Your task to perform on an android device: Empty the shopping cart on amazon. Add bose quietcomfort 35 to the cart on amazon Image 0: 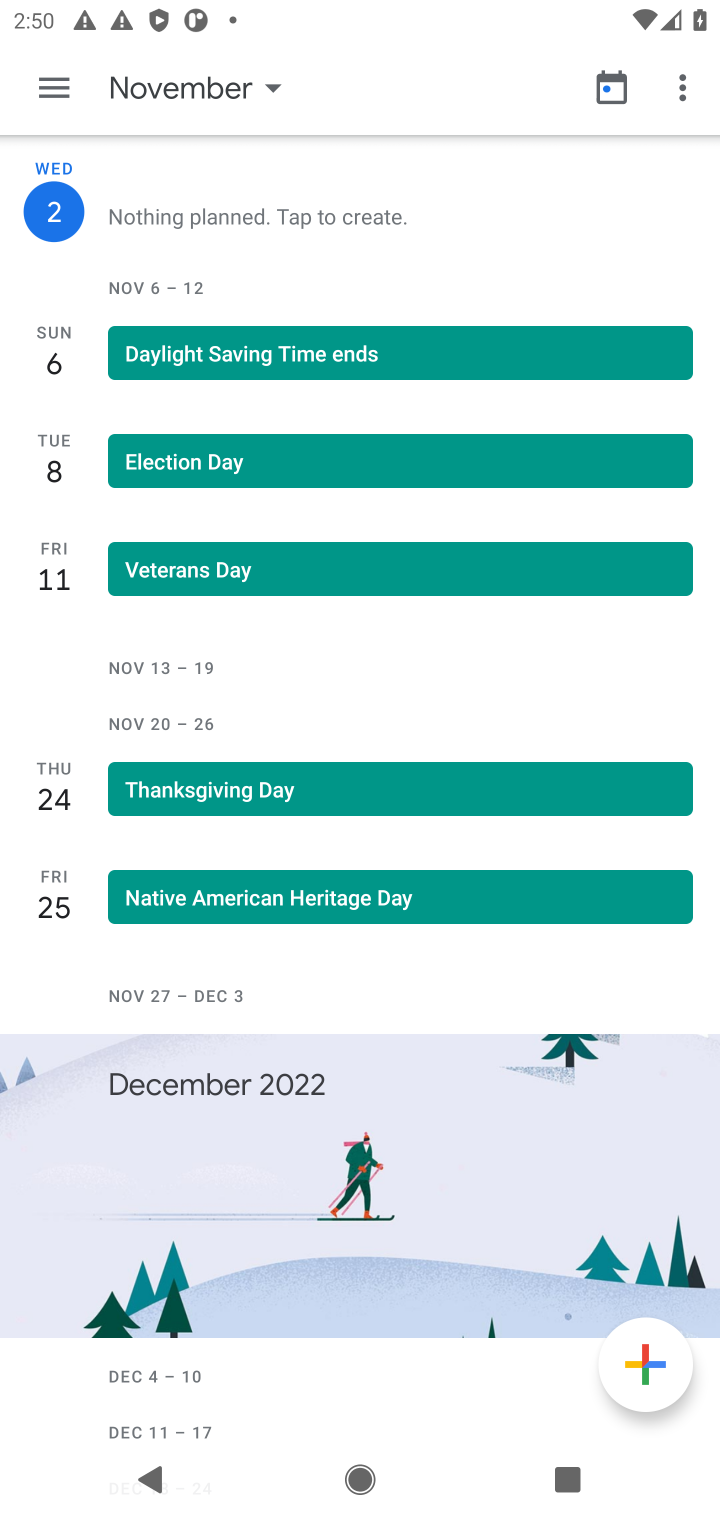
Step 0: press home button
Your task to perform on an android device: Empty the shopping cart on amazon. Add bose quietcomfort 35 to the cart on amazon Image 1: 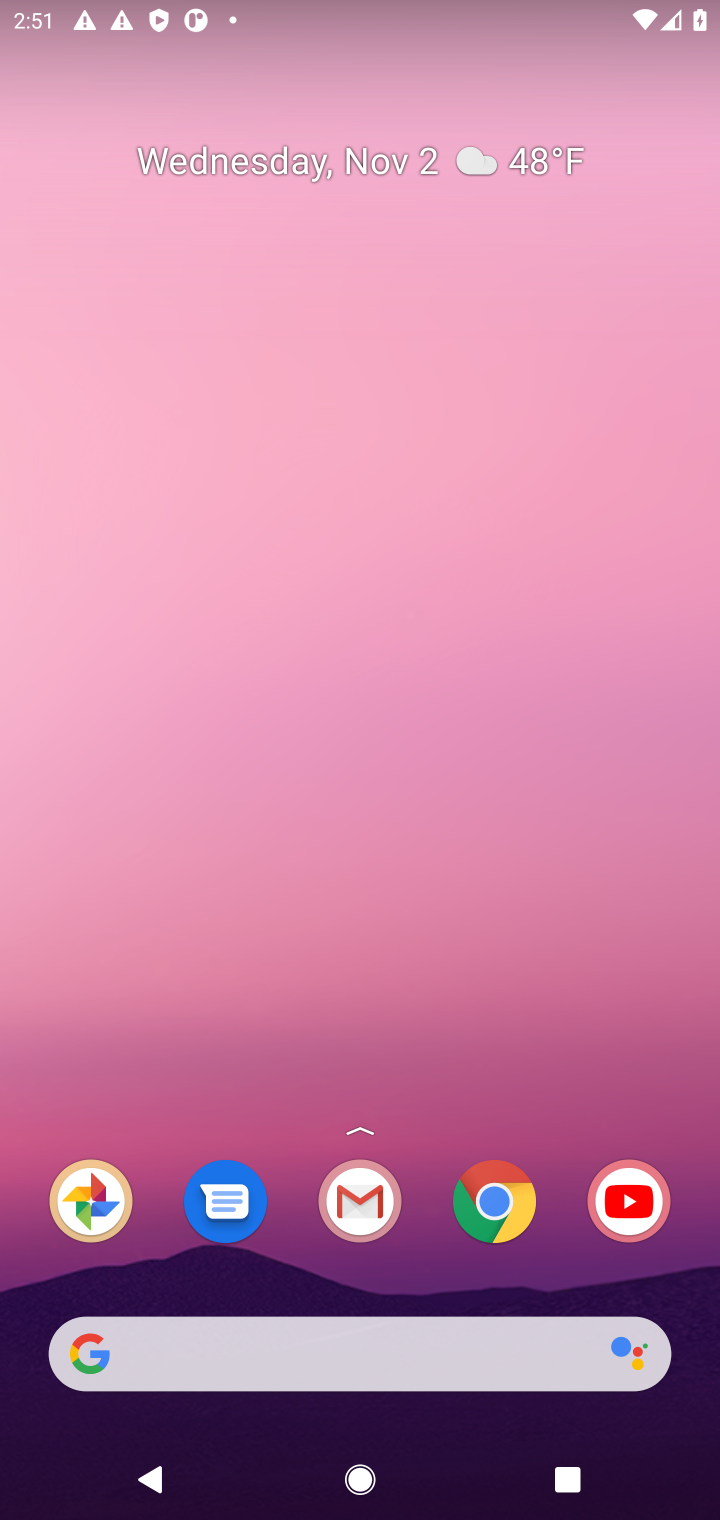
Step 1: click (495, 1207)
Your task to perform on an android device: Empty the shopping cart on amazon. Add bose quietcomfort 35 to the cart on amazon Image 2: 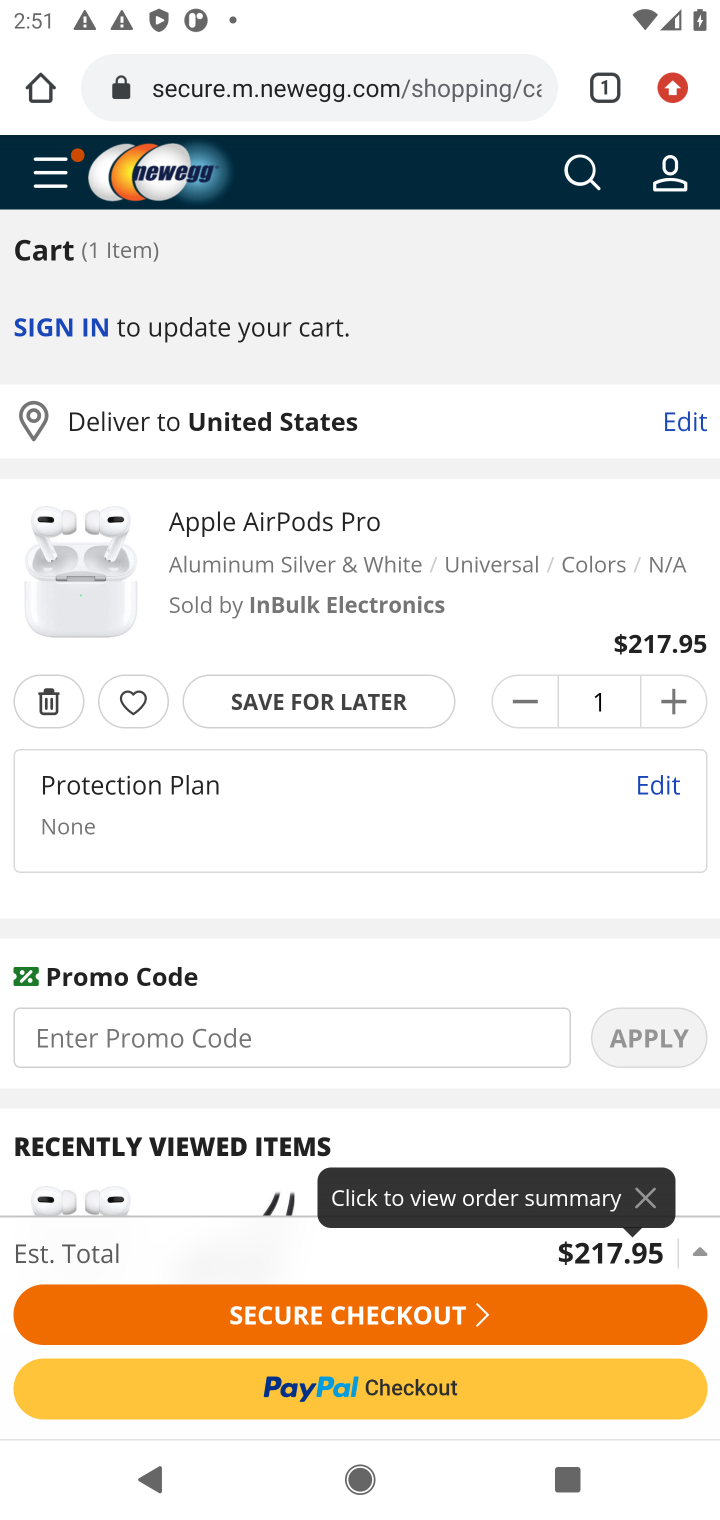
Step 2: click (438, 84)
Your task to perform on an android device: Empty the shopping cart on amazon. Add bose quietcomfort 35 to the cart on amazon Image 3: 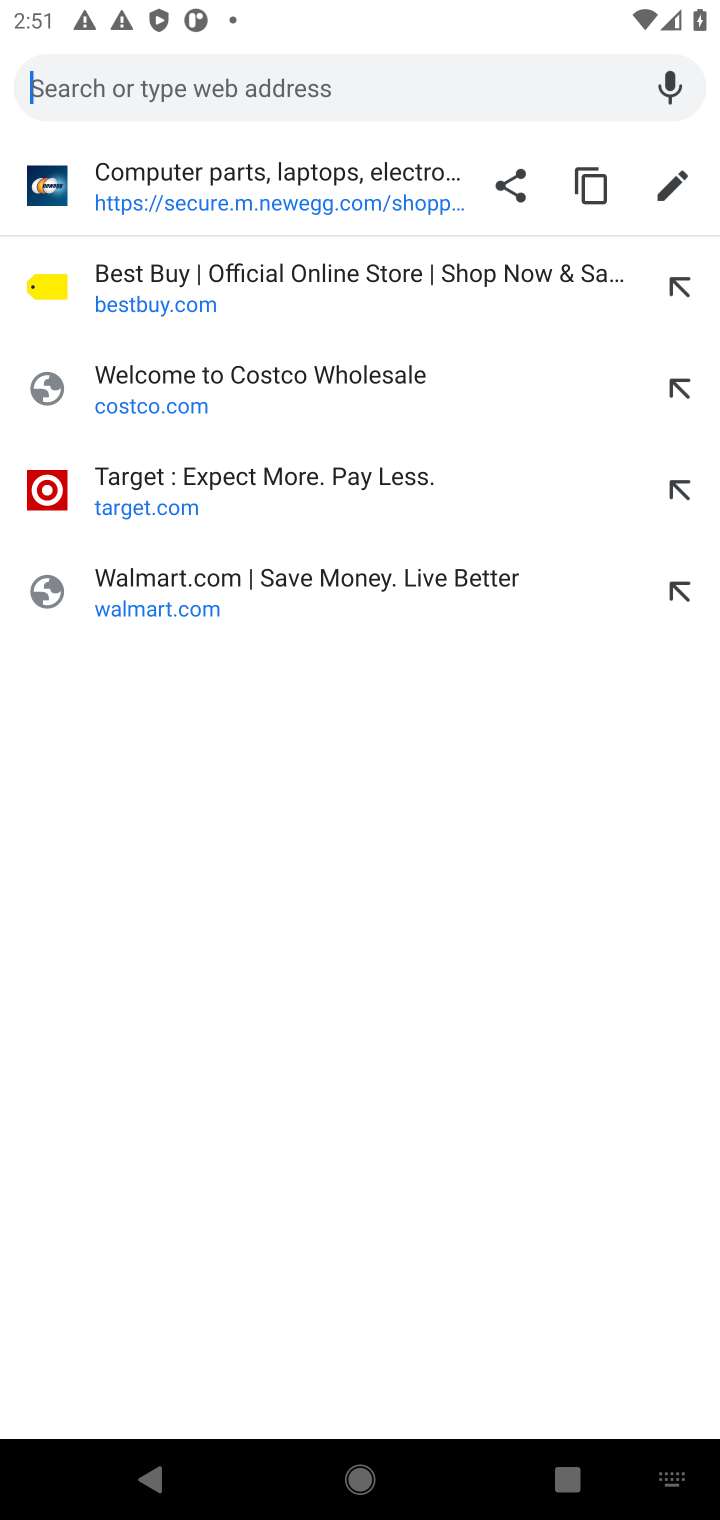
Step 3: type "amazon"
Your task to perform on an android device: Empty the shopping cart on amazon. Add bose quietcomfort 35 to the cart on amazon Image 4: 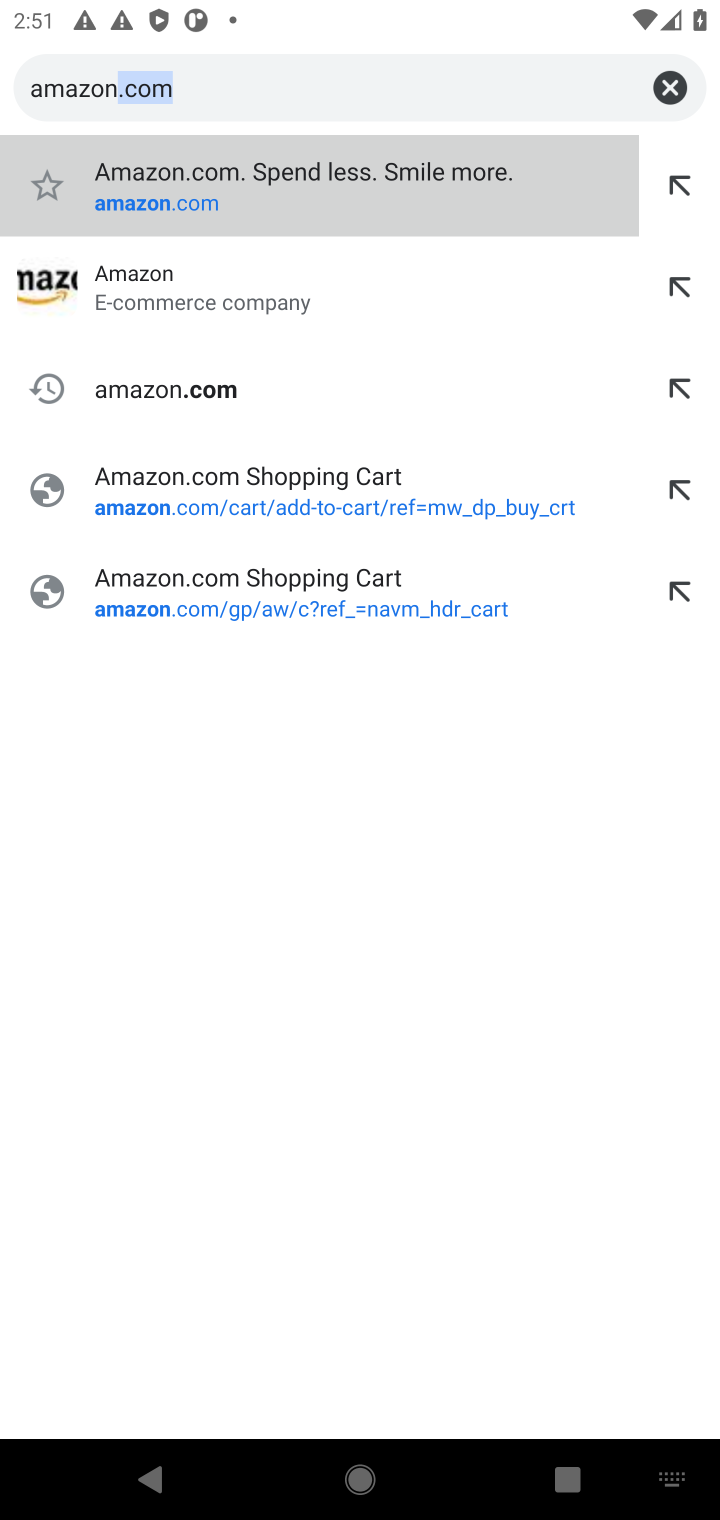
Step 4: press enter
Your task to perform on an android device: Empty the shopping cart on amazon. Add bose quietcomfort 35 to the cart on amazon Image 5: 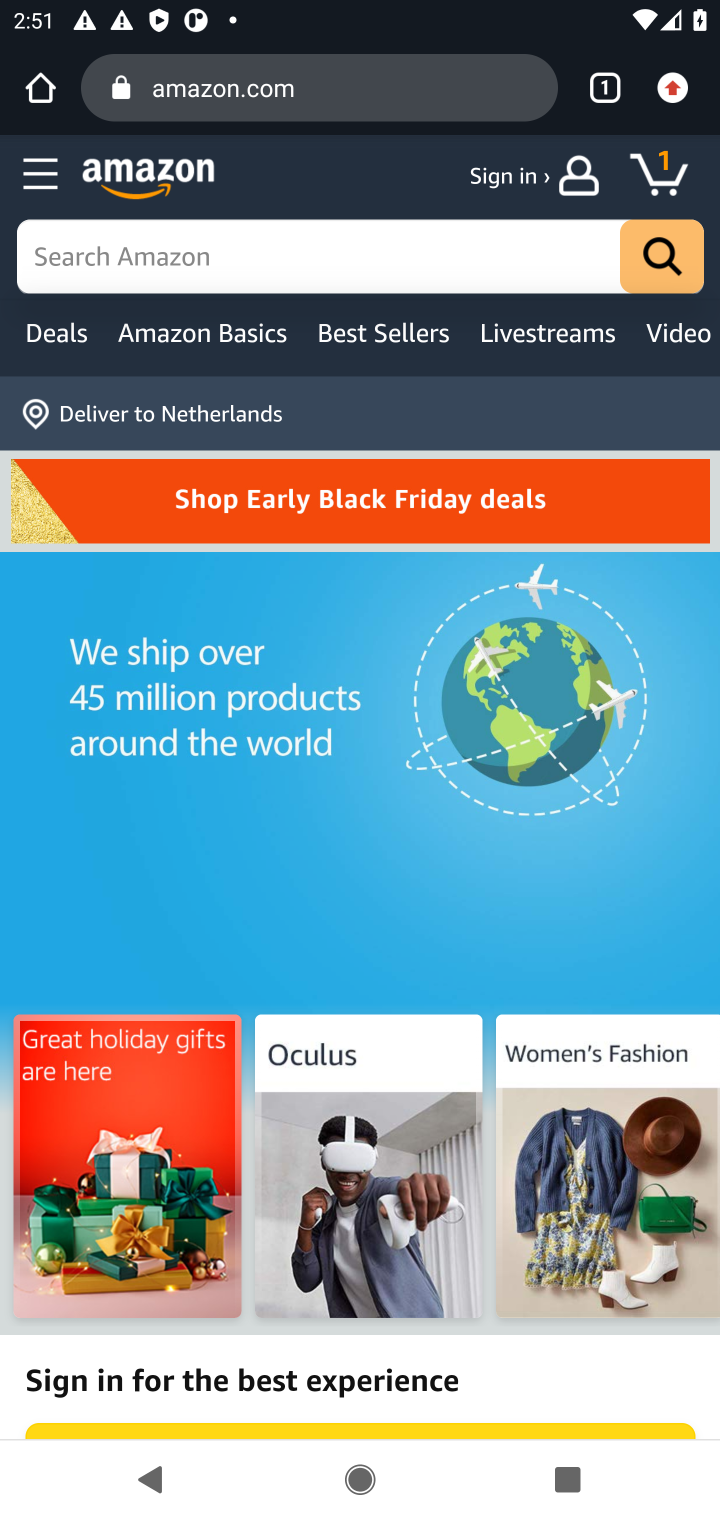
Step 5: click (368, 252)
Your task to perform on an android device: Empty the shopping cart on amazon. Add bose quietcomfort 35 to the cart on amazon Image 6: 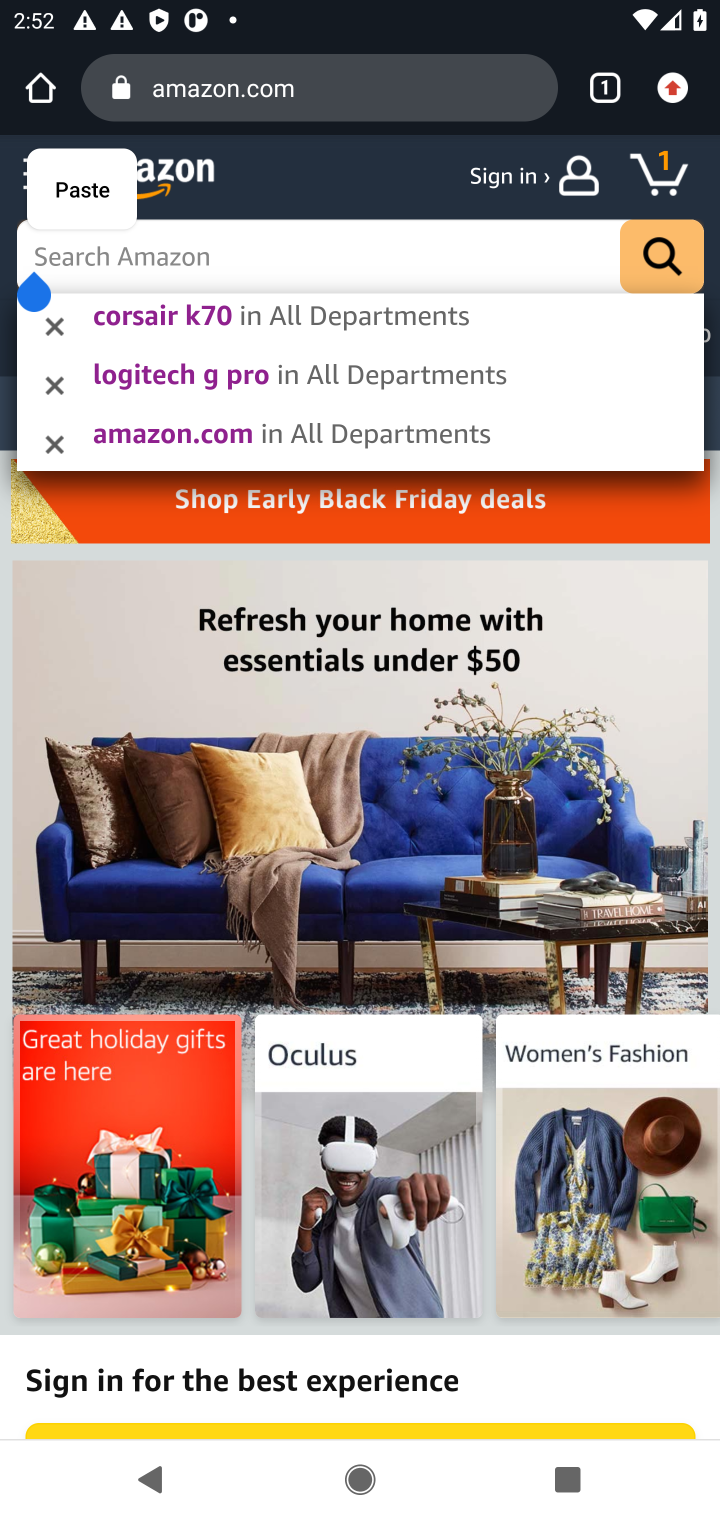
Step 6: type "bose quietcomfort 35"
Your task to perform on an android device: Empty the shopping cart on amazon. Add bose quietcomfort 35 to the cart on amazon Image 7: 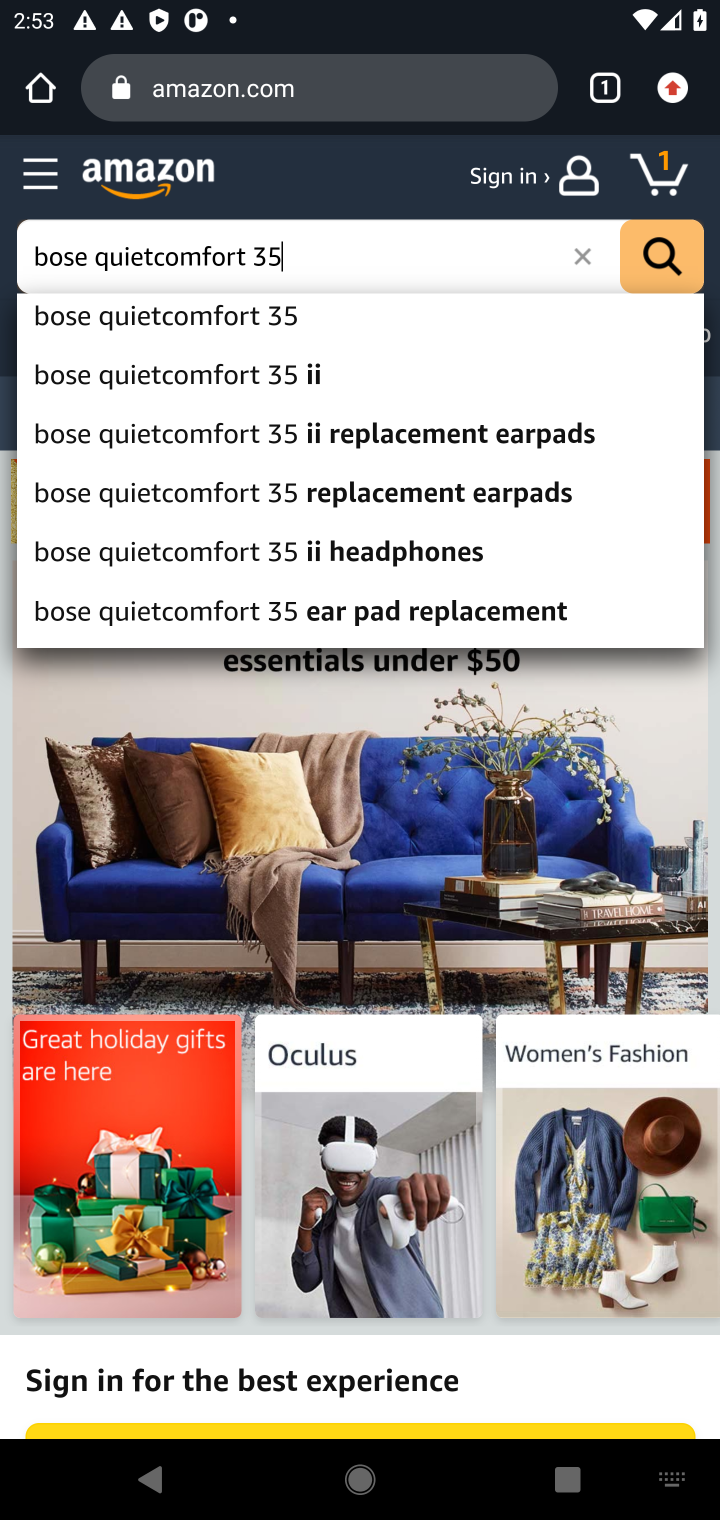
Step 7: click (238, 306)
Your task to perform on an android device: Empty the shopping cart on amazon. Add bose quietcomfort 35 to the cart on amazon Image 8: 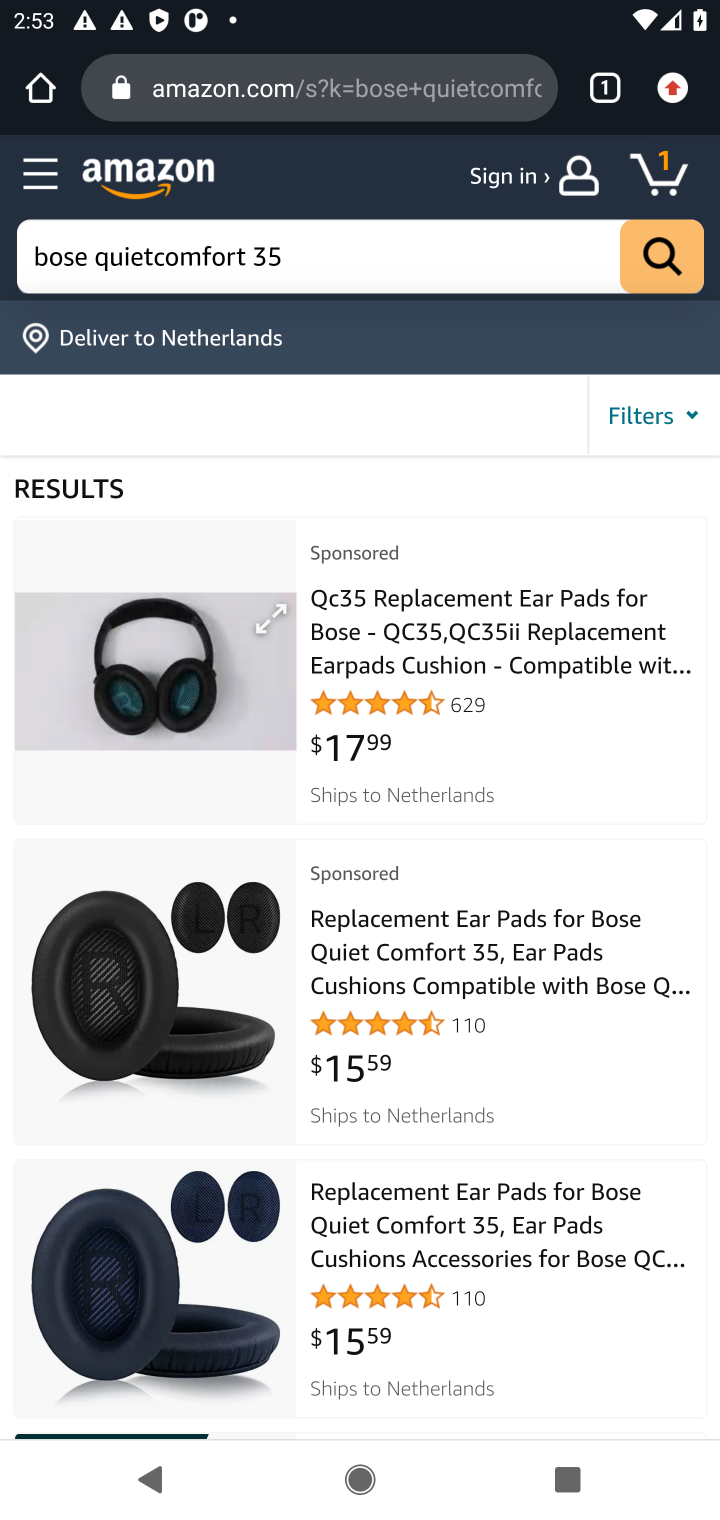
Step 8: drag from (600, 1091) to (553, 674)
Your task to perform on an android device: Empty the shopping cart on amazon. Add bose quietcomfort 35 to the cart on amazon Image 9: 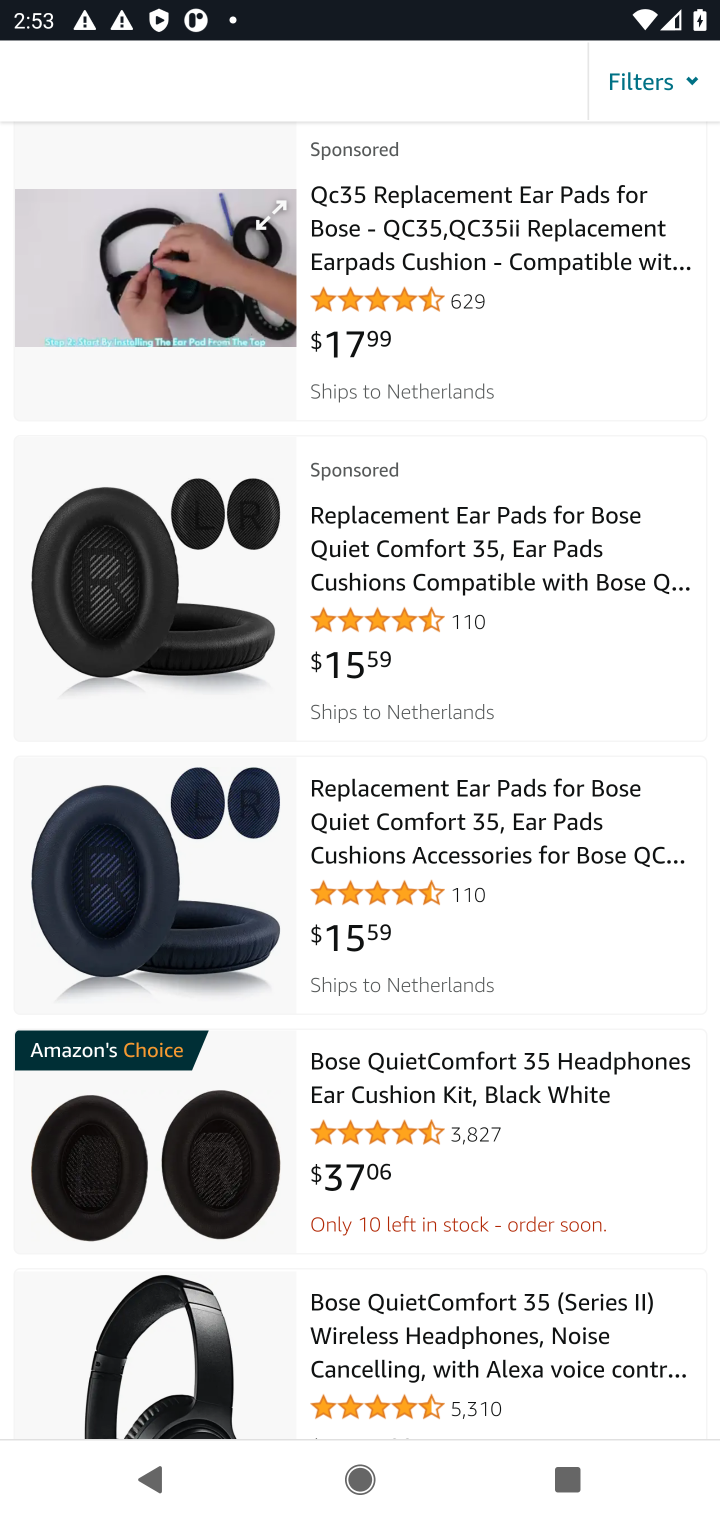
Step 9: click (538, 1082)
Your task to perform on an android device: Empty the shopping cart on amazon. Add bose quietcomfort 35 to the cart on amazon Image 10: 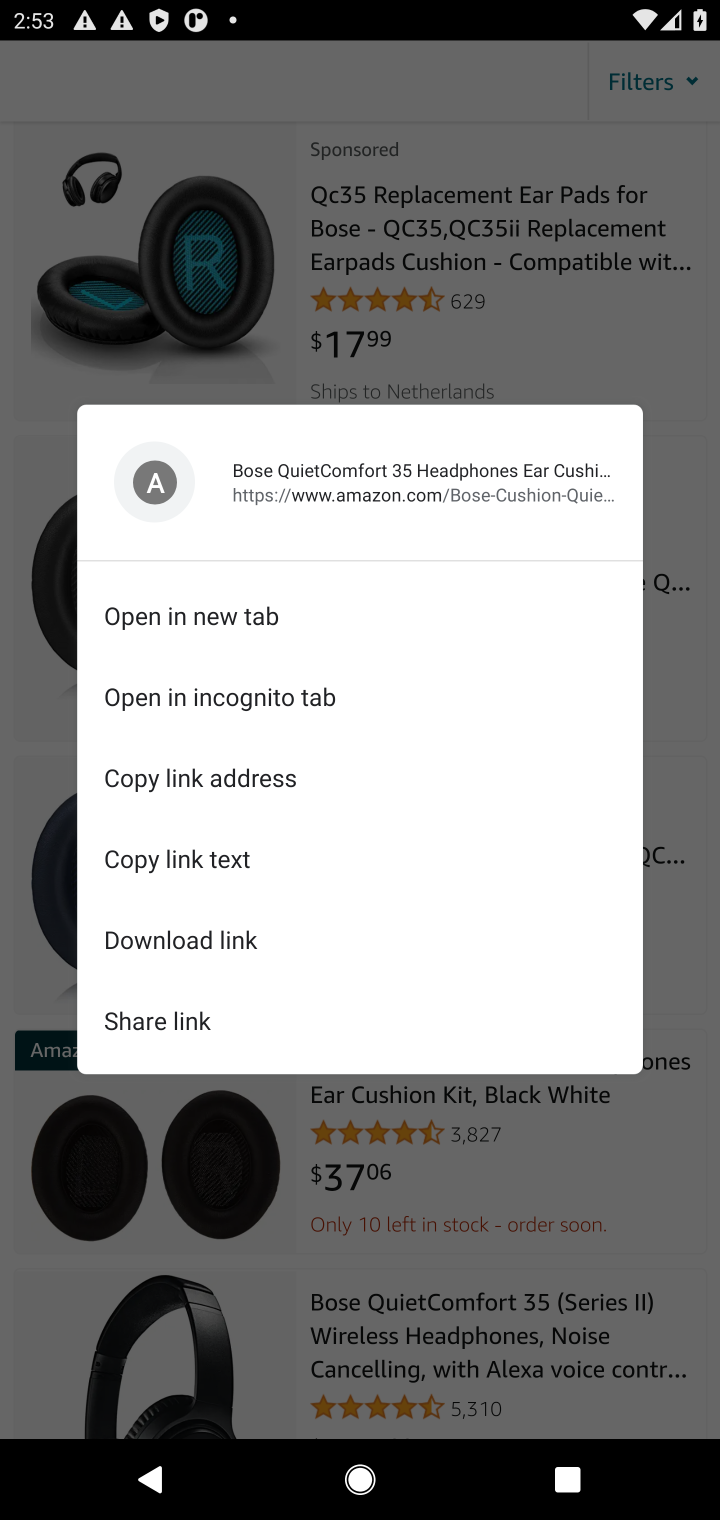
Step 10: click (538, 1082)
Your task to perform on an android device: Empty the shopping cart on amazon. Add bose quietcomfort 35 to the cart on amazon Image 11: 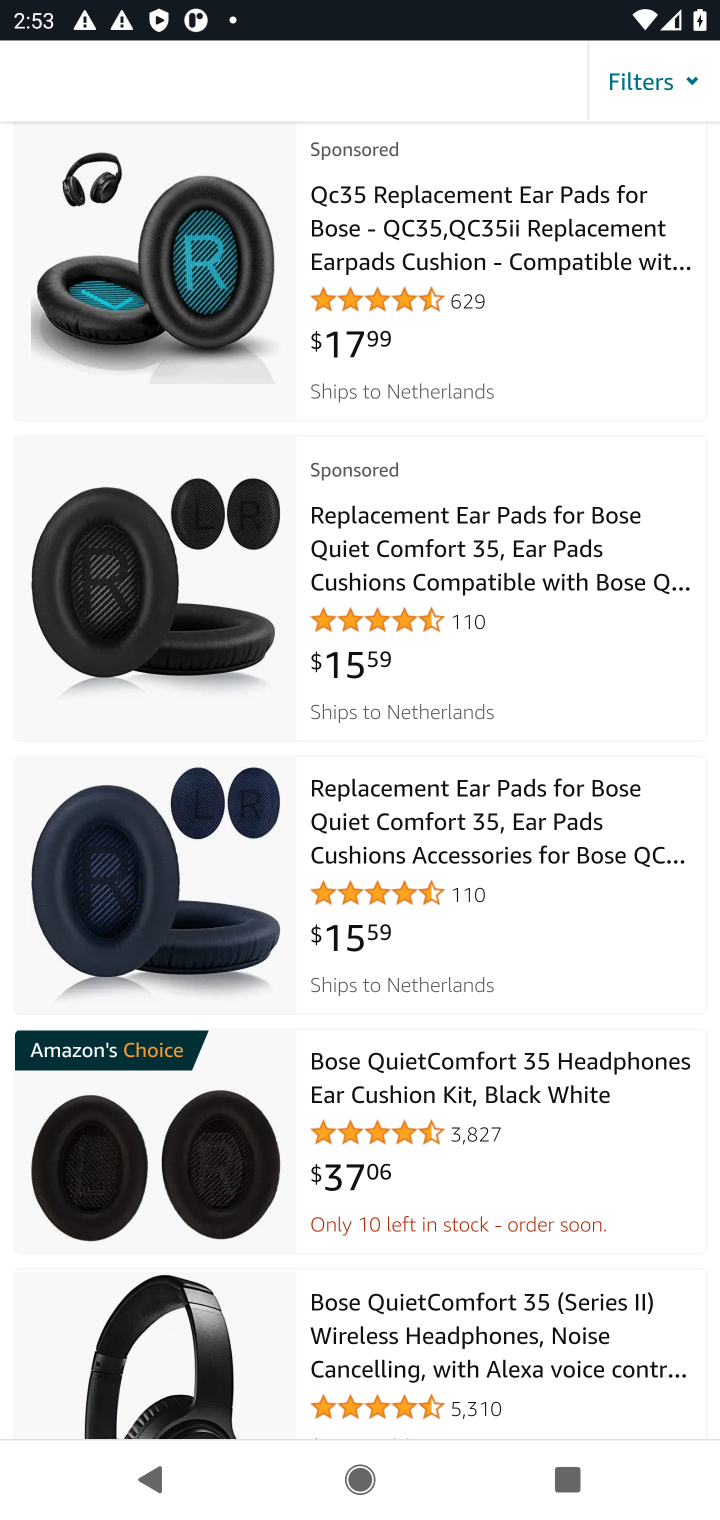
Step 11: click (538, 1082)
Your task to perform on an android device: Empty the shopping cart on amazon. Add bose quietcomfort 35 to the cart on amazon Image 12: 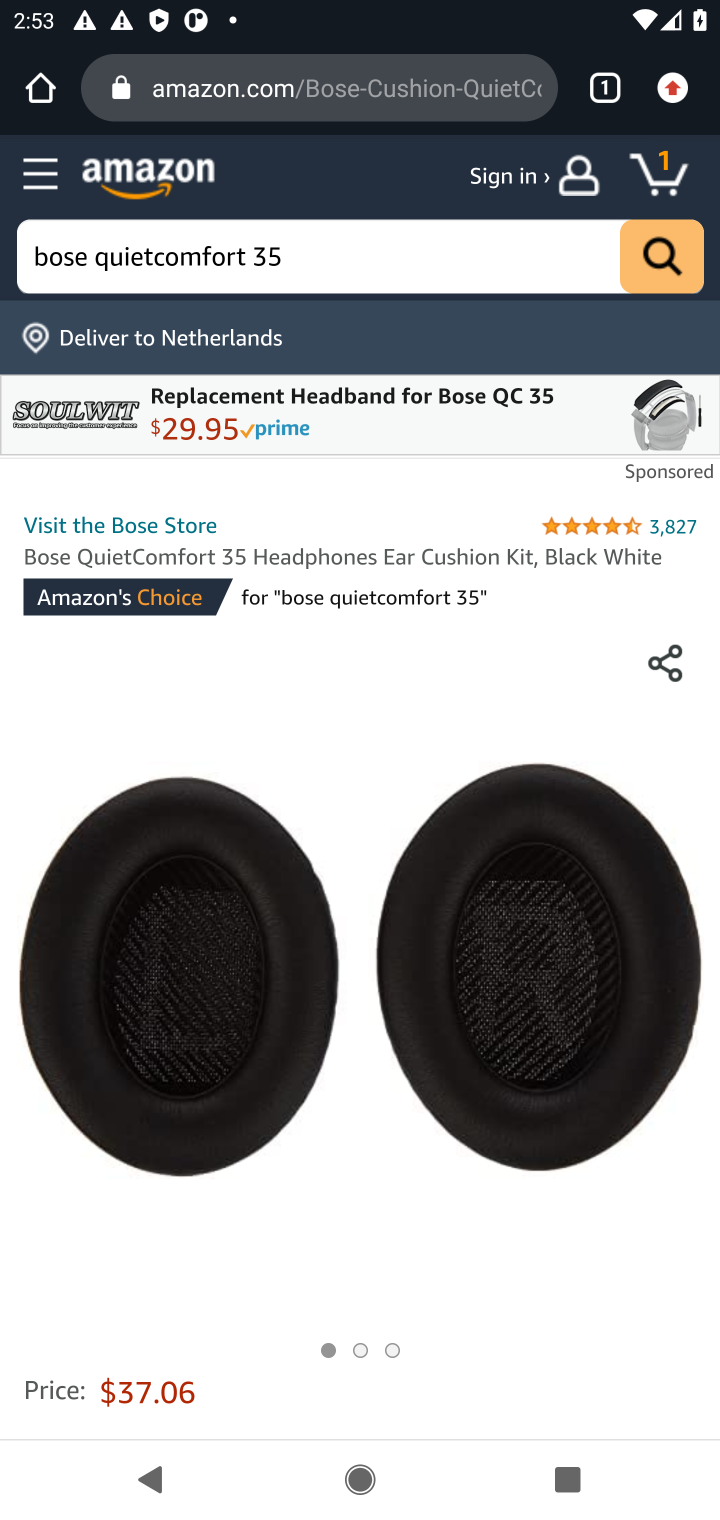
Step 12: drag from (468, 1182) to (420, 754)
Your task to perform on an android device: Empty the shopping cart on amazon. Add bose quietcomfort 35 to the cart on amazon Image 13: 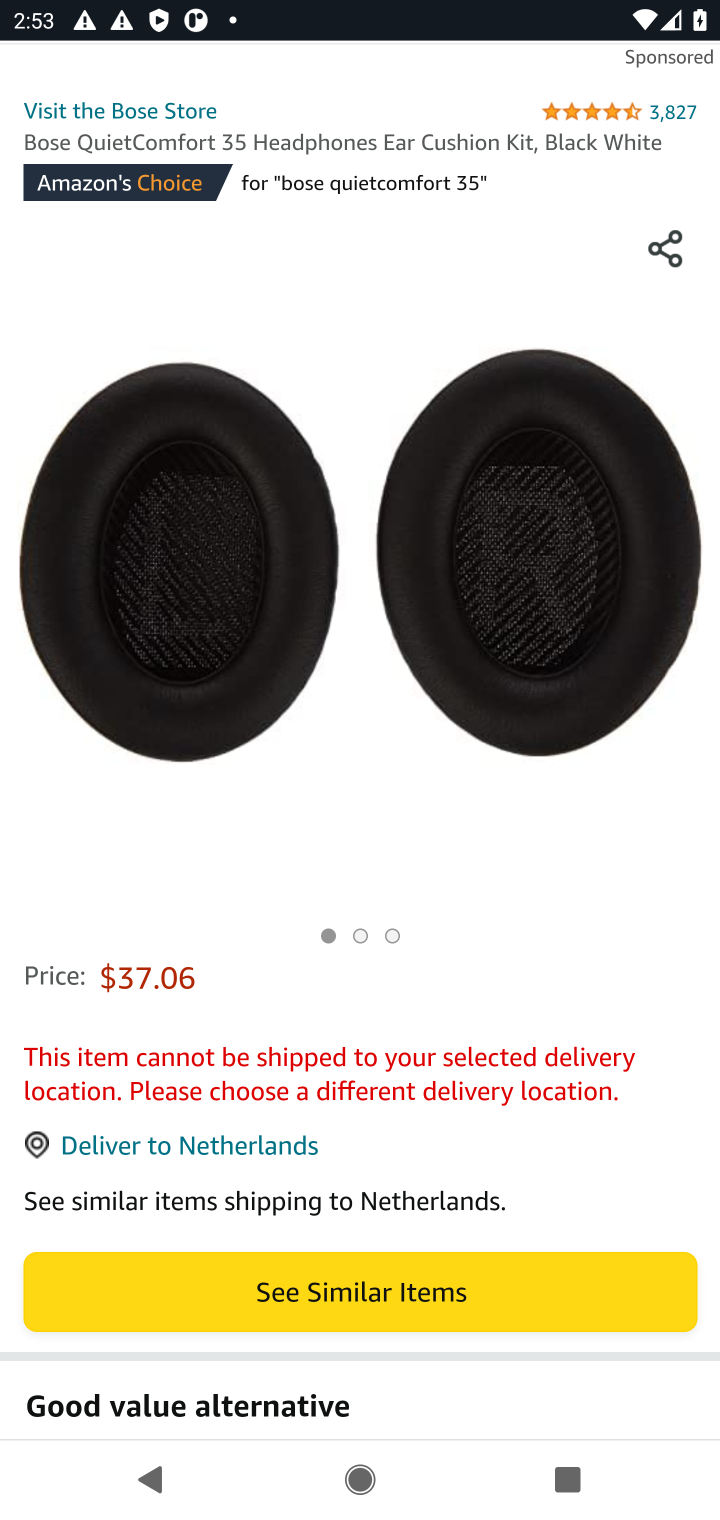
Step 13: press back button
Your task to perform on an android device: Empty the shopping cart on amazon. Add bose quietcomfort 35 to the cart on amazon Image 14: 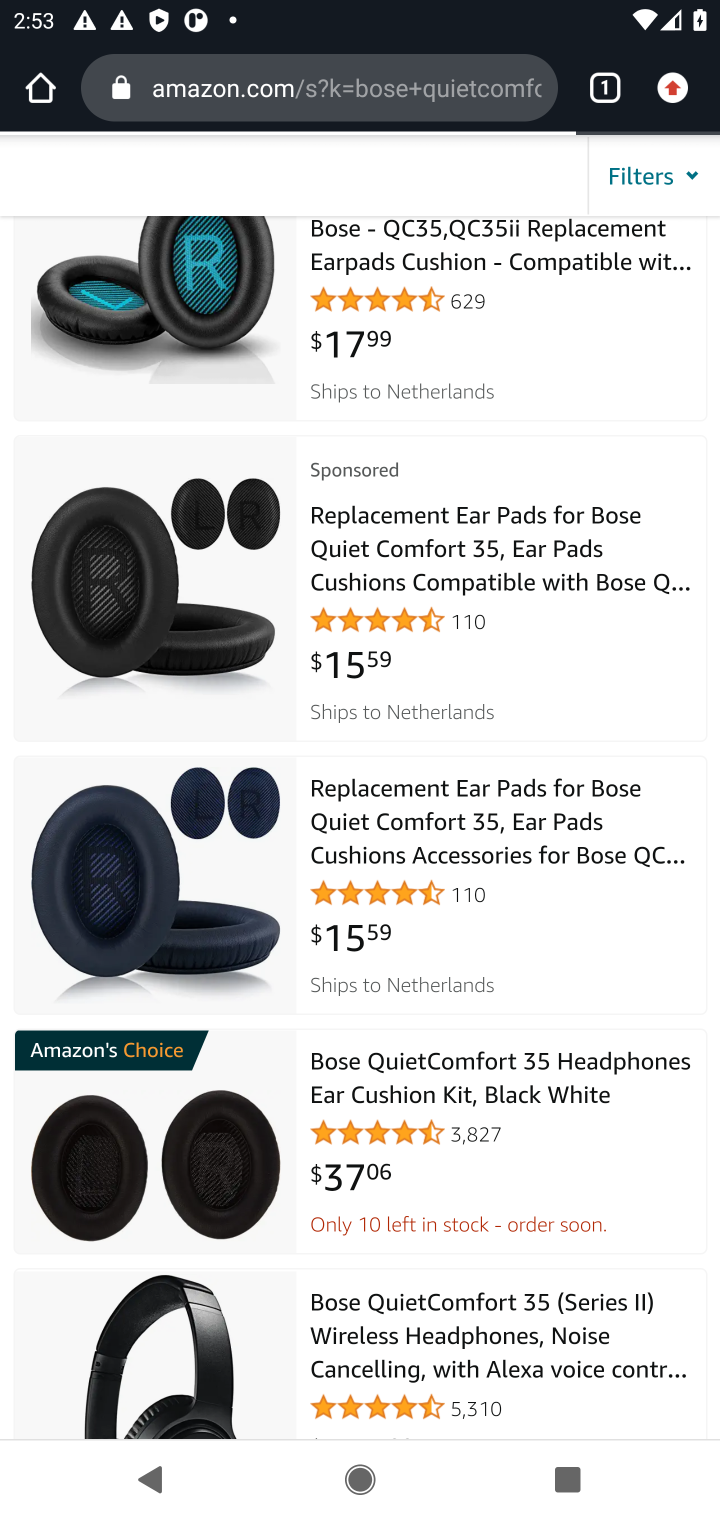
Step 14: drag from (468, 808) to (461, 728)
Your task to perform on an android device: Empty the shopping cart on amazon. Add bose quietcomfort 35 to the cart on amazon Image 15: 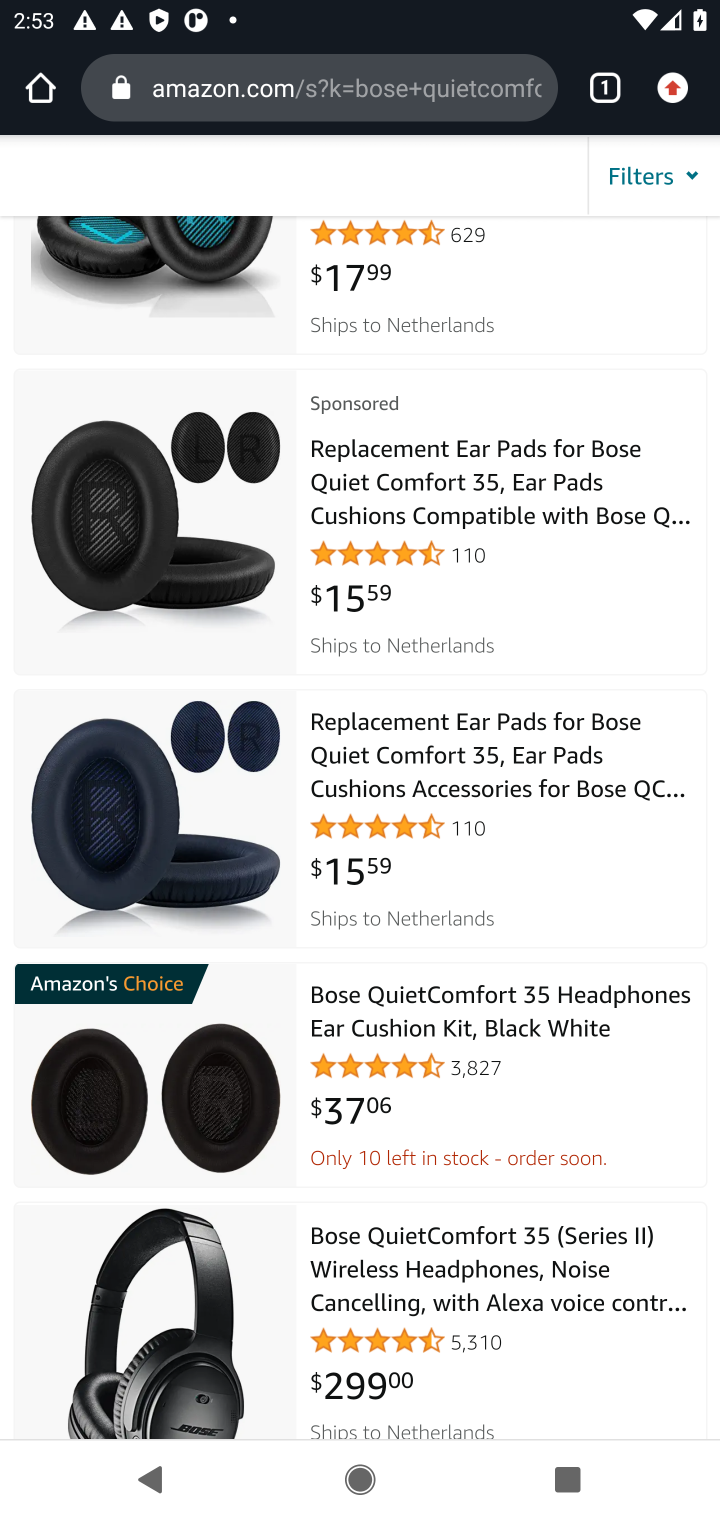
Step 15: click (154, 1254)
Your task to perform on an android device: Empty the shopping cart on amazon. Add bose quietcomfort 35 to the cart on amazon Image 16: 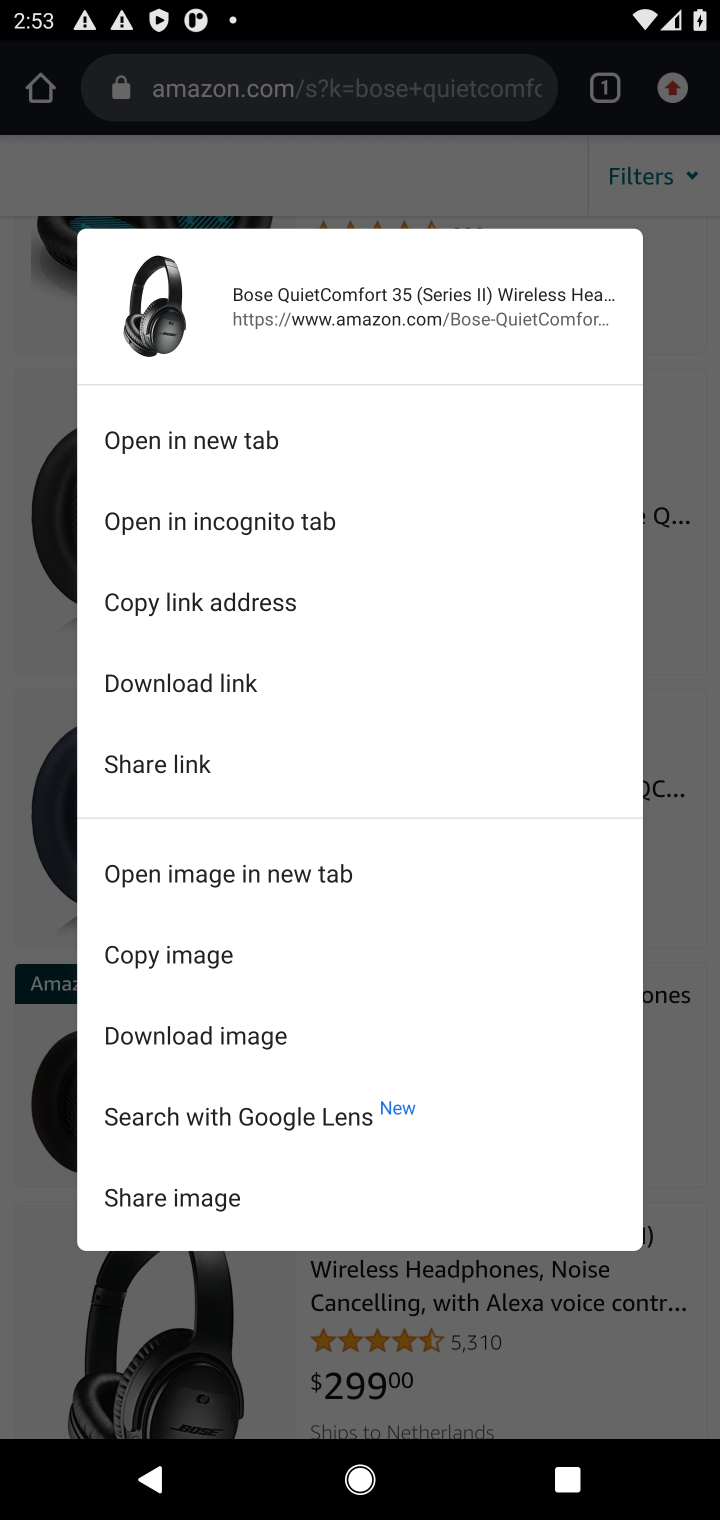
Step 16: click (699, 544)
Your task to perform on an android device: Empty the shopping cart on amazon. Add bose quietcomfort 35 to the cart on amazon Image 17: 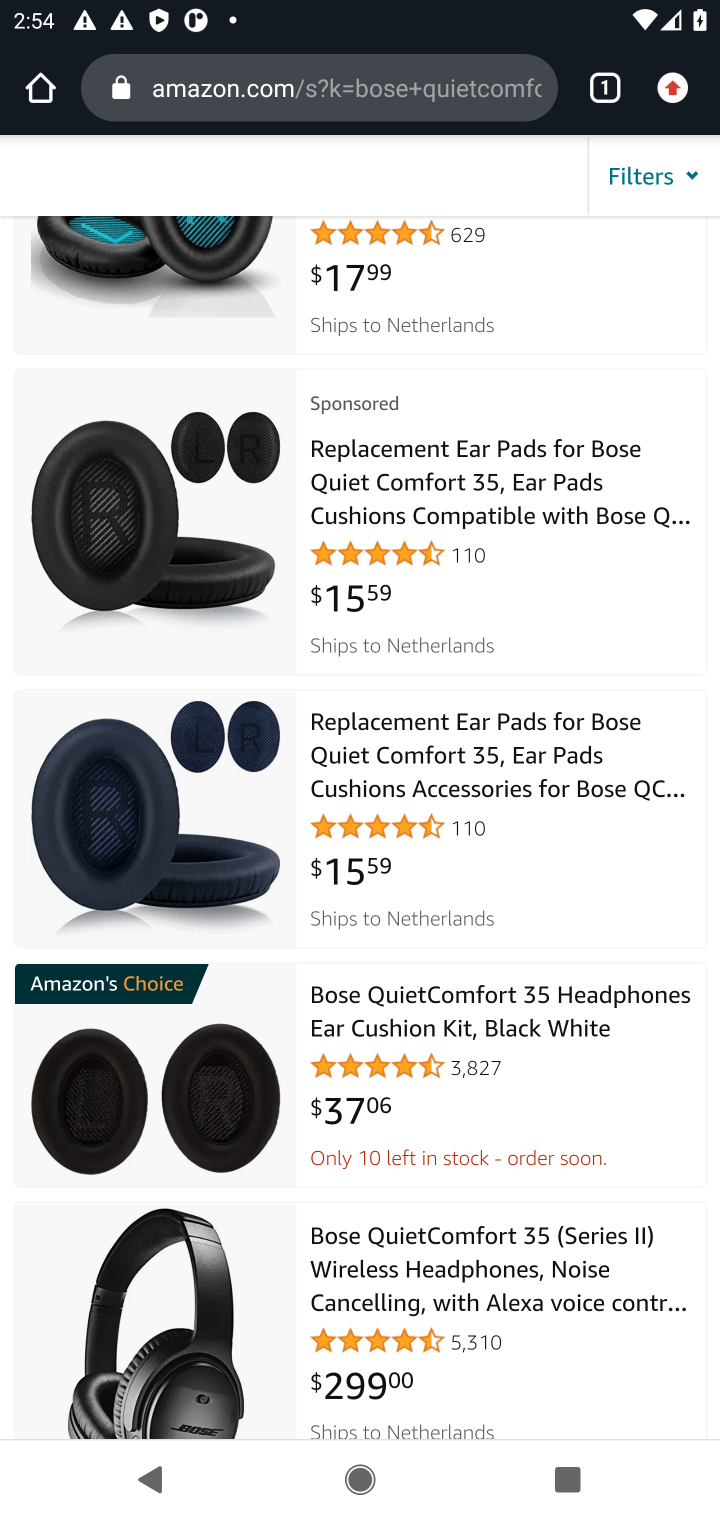
Step 17: click (132, 1264)
Your task to perform on an android device: Empty the shopping cart on amazon. Add bose quietcomfort 35 to the cart on amazon Image 18: 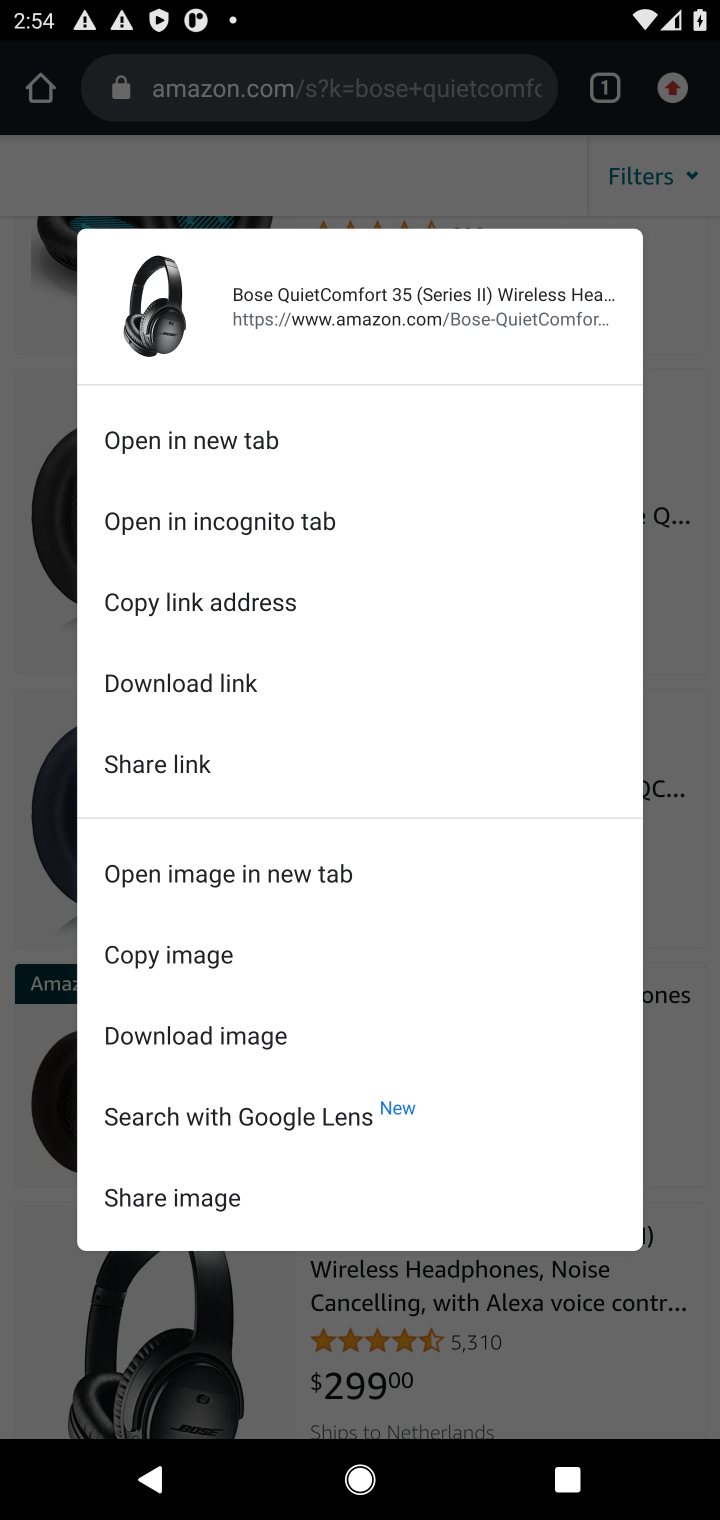
Step 18: click (144, 1295)
Your task to perform on an android device: Empty the shopping cart on amazon. Add bose quietcomfort 35 to the cart on amazon Image 19: 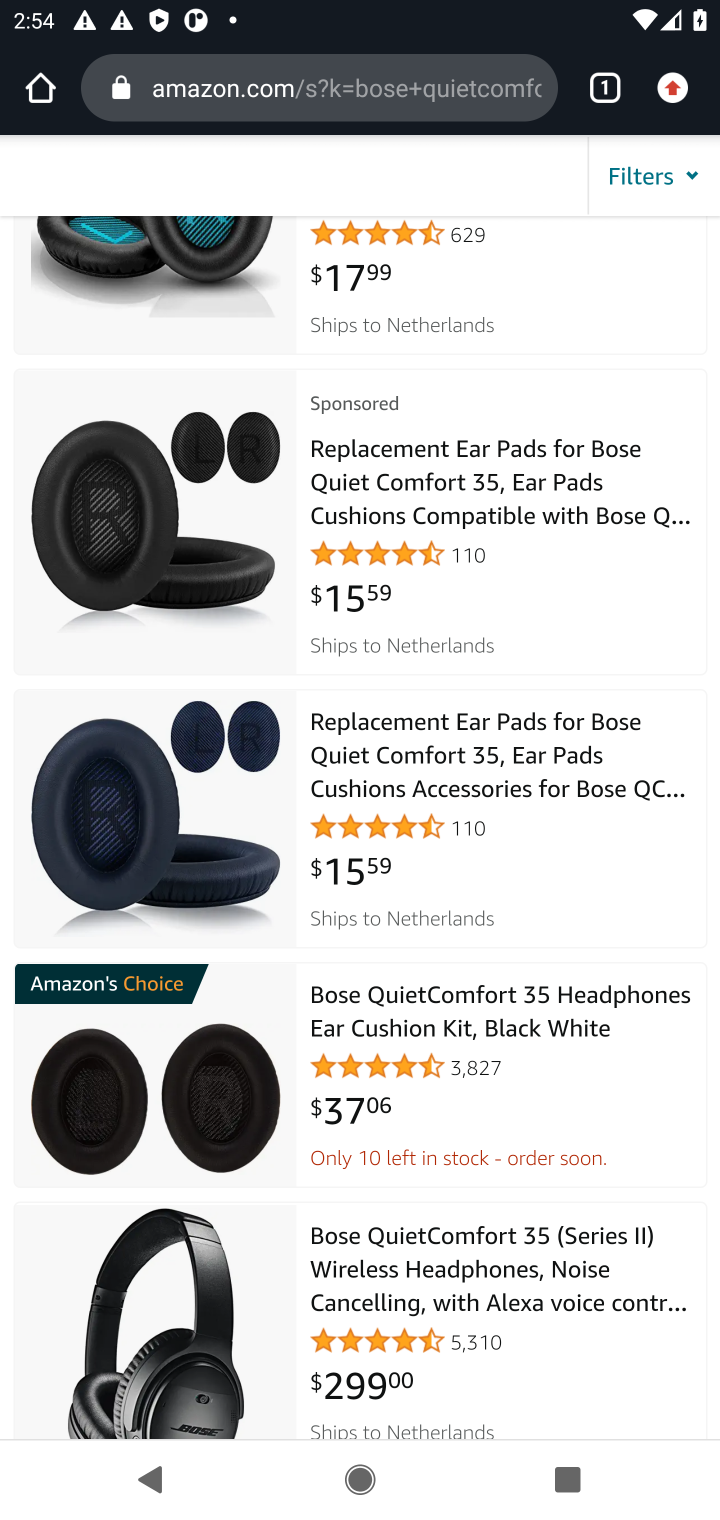
Step 19: click (155, 1299)
Your task to perform on an android device: Empty the shopping cart on amazon. Add bose quietcomfort 35 to the cart on amazon Image 20: 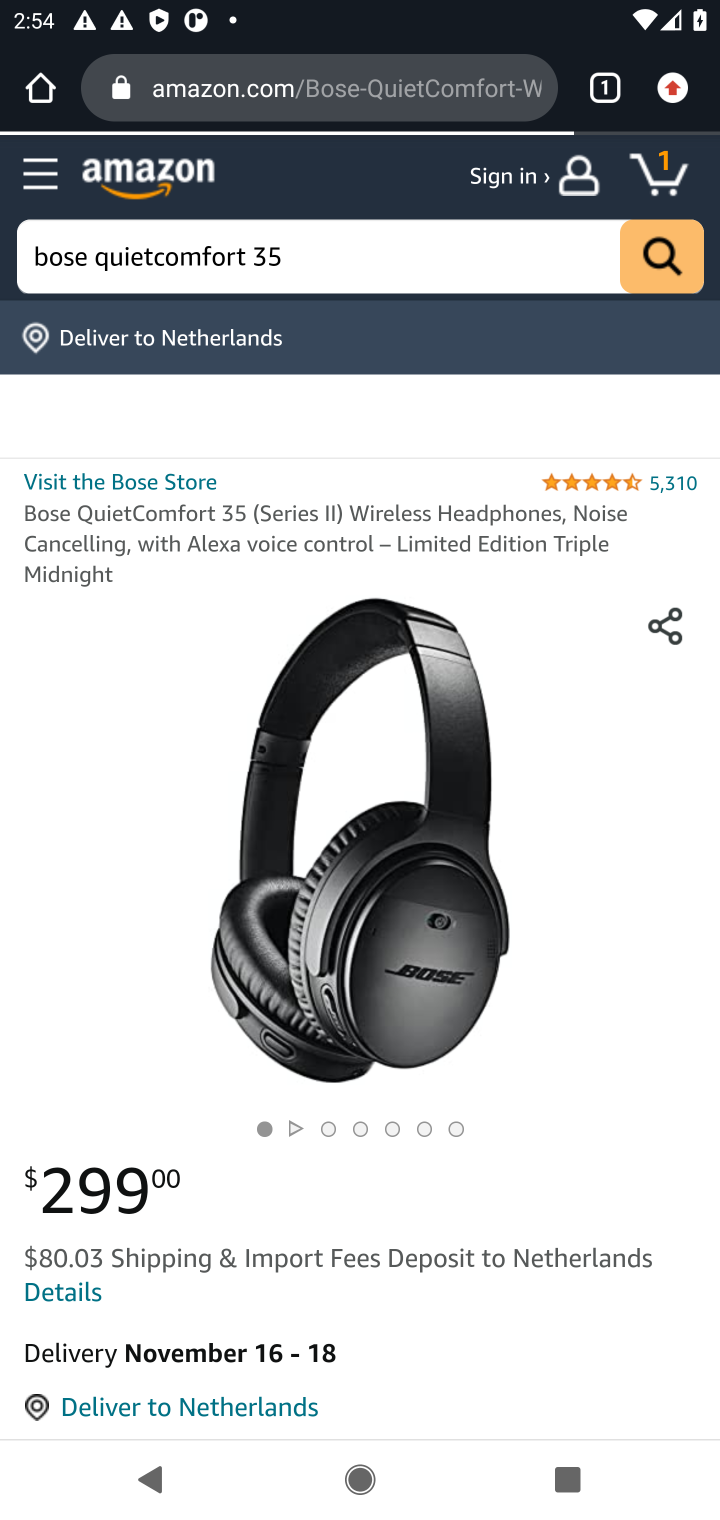
Step 20: drag from (453, 1348) to (392, 596)
Your task to perform on an android device: Empty the shopping cart on amazon. Add bose quietcomfort 35 to the cart on amazon Image 21: 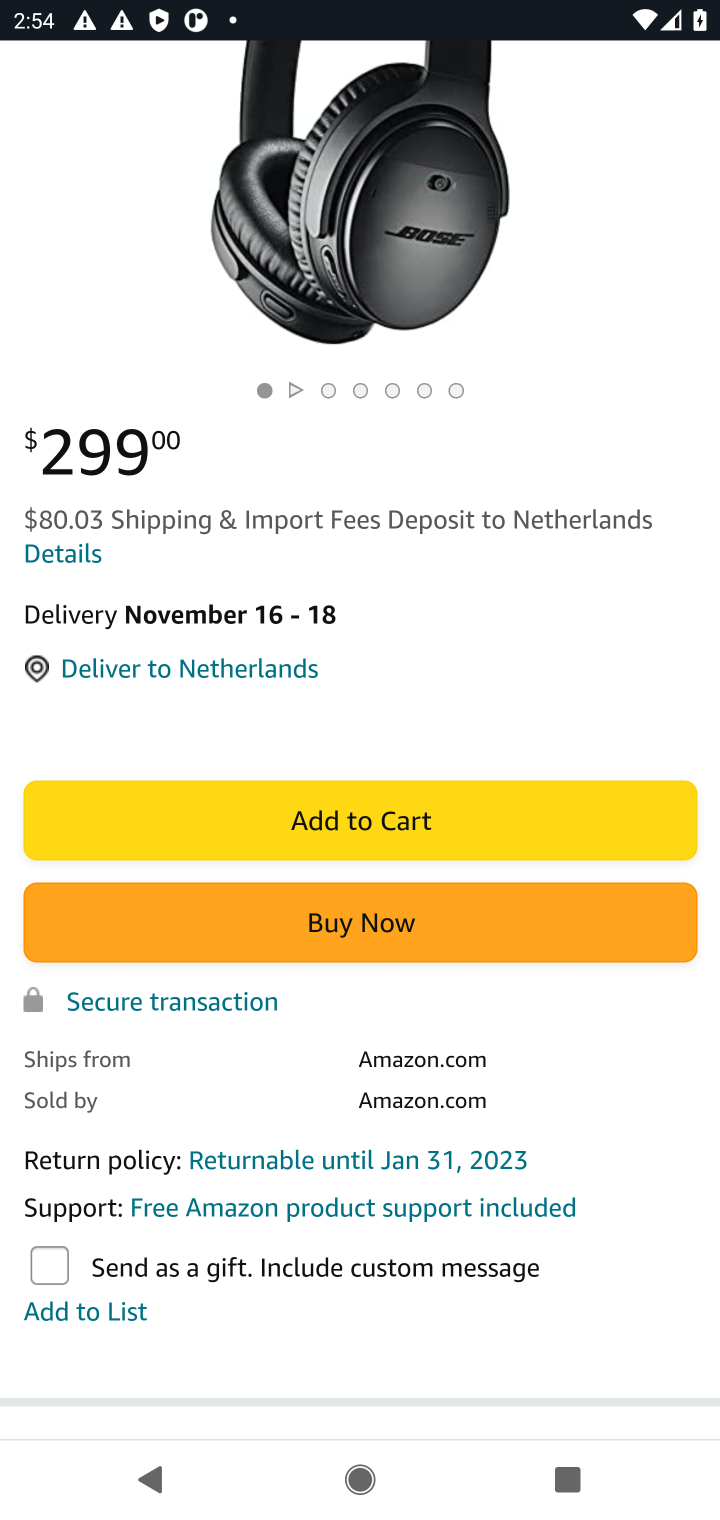
Step 21: click (371, 826)
Your task to perform on an android device: Empty the shopping cart on amazon. Add bose quietcomfort 35 to the cart on amazon Image 22: 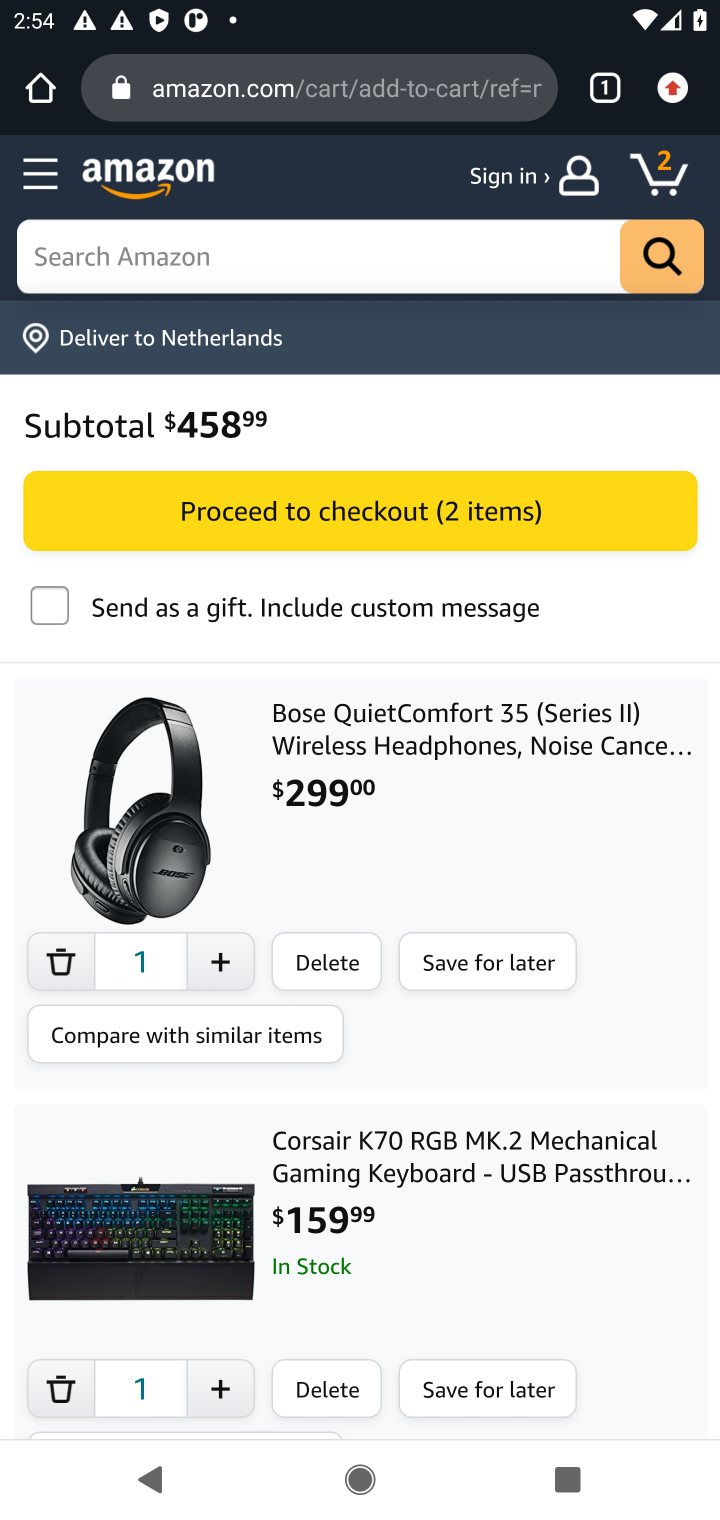
Step 22: task complete